Your task to perform on an android device: Open internet settings Image 0: 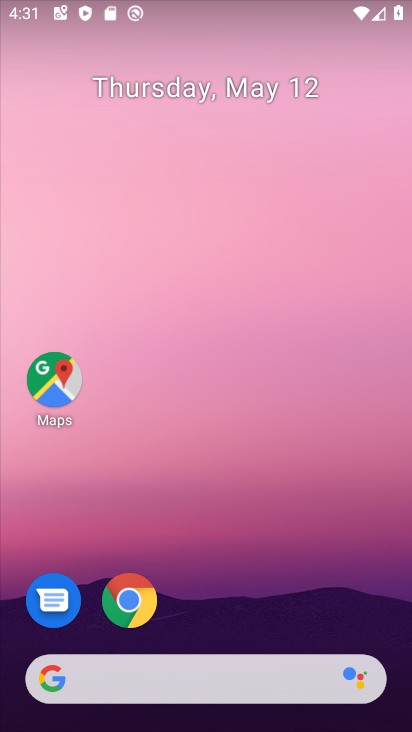
Step 0: drag from (179, 620) to (260, 148)
Your task to perform on an android device: Open internet settings Image 1: 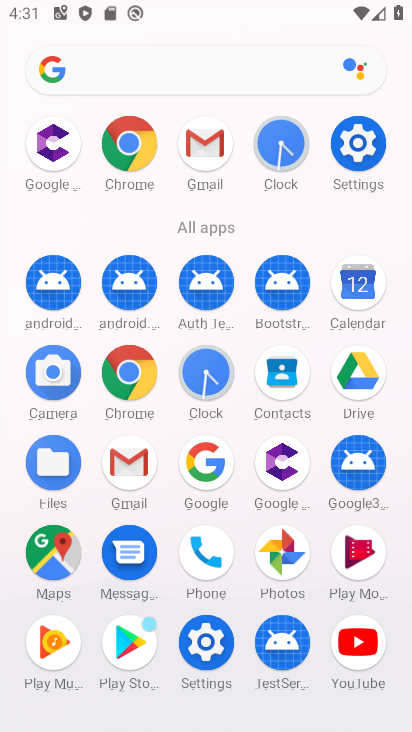
Step 1: drag from (203, 417) to (238, 291)
Your task to perform on an android device: Open internet settings Image 2: 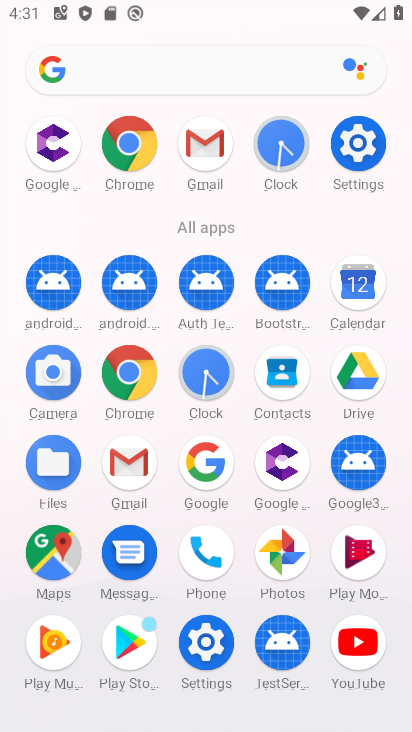
Step 2: click (366, 143)
Your task to perform on an android device: Open internet settings Image 3: 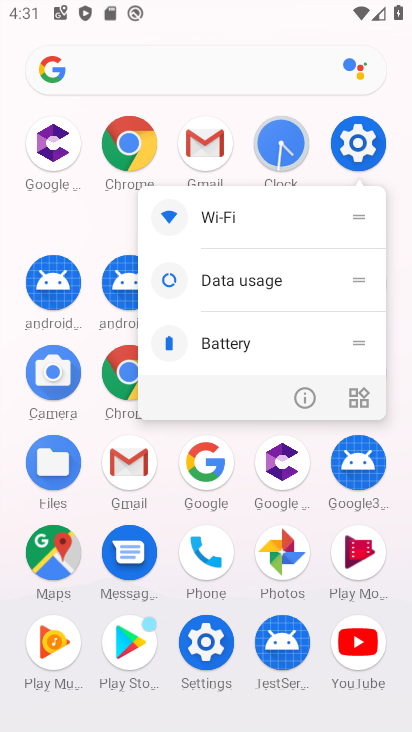
Step 3: click (303, 397)
Your task to perform on an android device: Open internet settings Image 4: 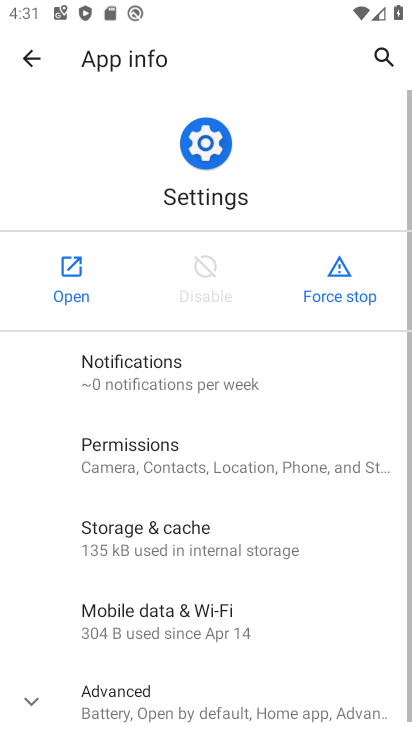
Step 4: click (87, 276)
Your task to perform on an android device: Open internet settings Image 5: 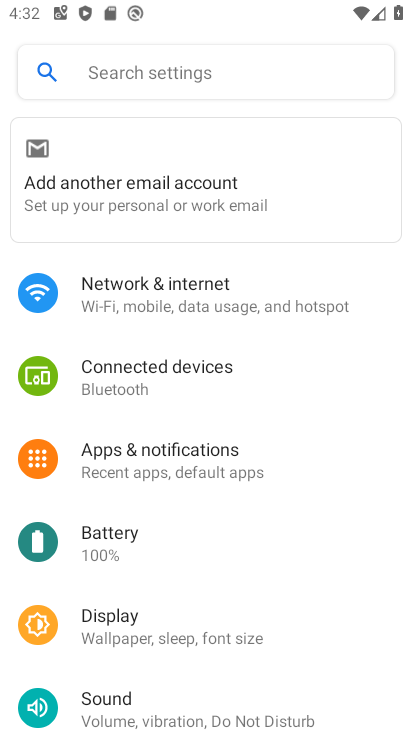
Step 5: click (148, 288)
Your task to perform on an android device: Open internet settings Image 6: 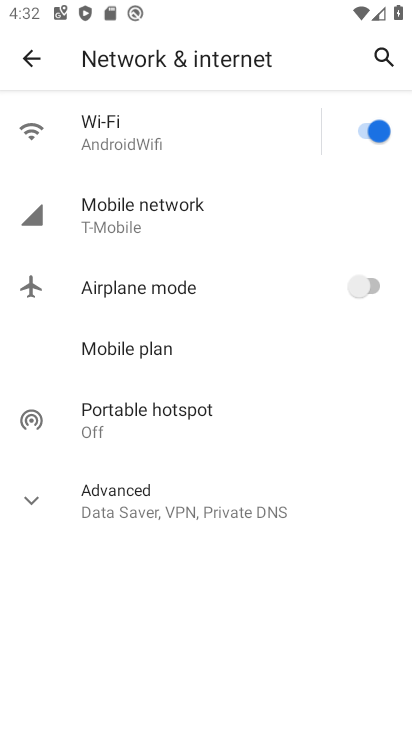
Step 6: task complete